Your task to perform on an android device: check google app version Image 0: 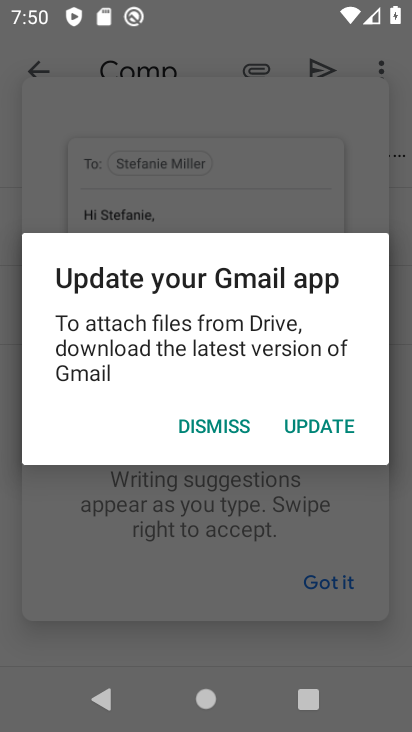
Step 0: press back button
Your task to perform on an android device: check google app version Image 1: 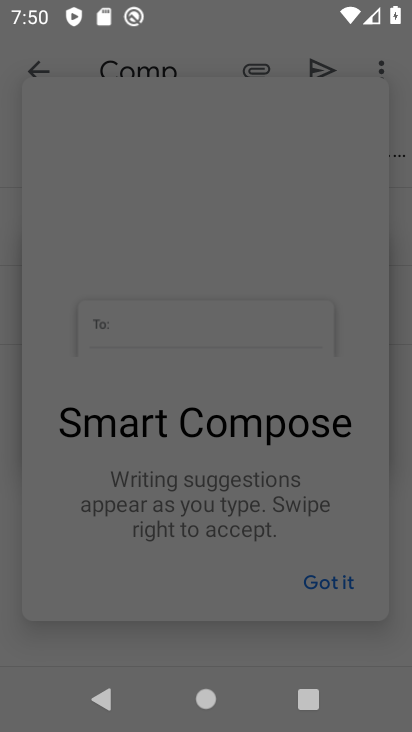
Step 1: press back button
Your task to perform on an android device: check google app version Image 2: 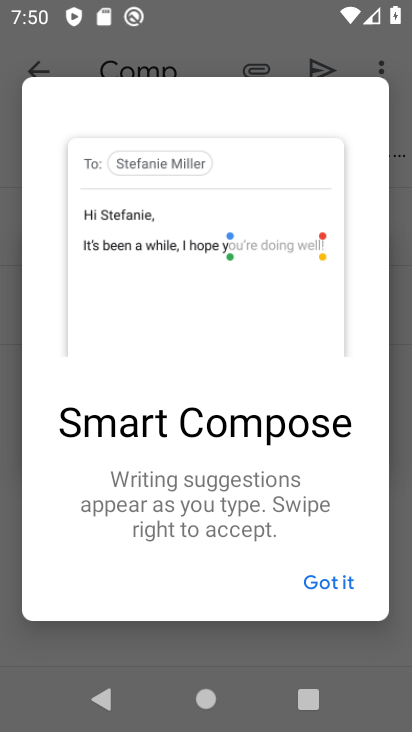
Step 2: press home button
Your task to perform on an android device: check google app version Image 3: 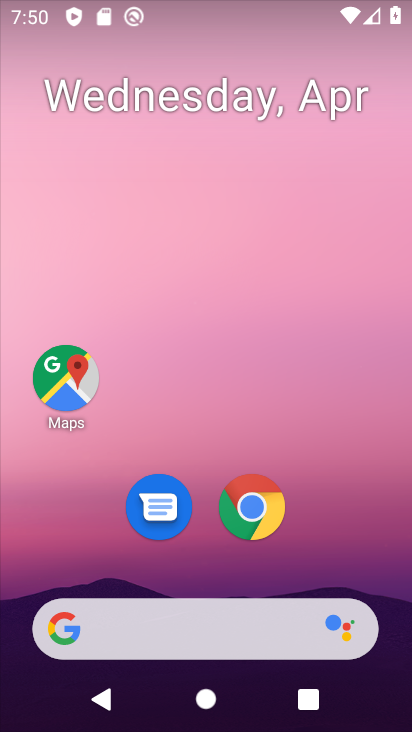
Step 3: drag from (310, 490) to (259, 122)
Your task to perform on an android device: check google app version Image 4: 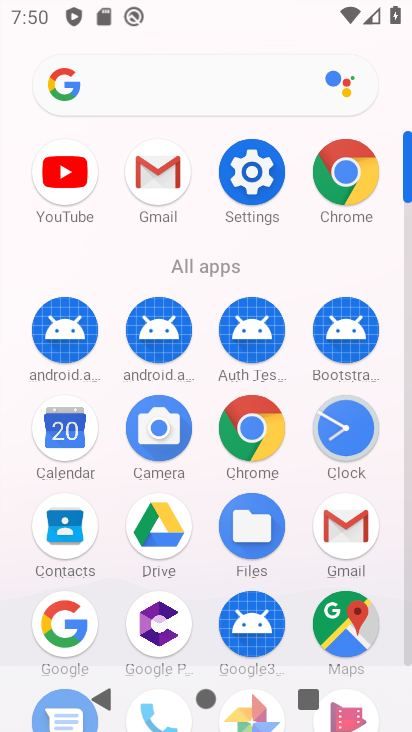
Step 4: drag from (21, 550) to (17, 374)
Your task to perform on an android device: check google app version Image 5: 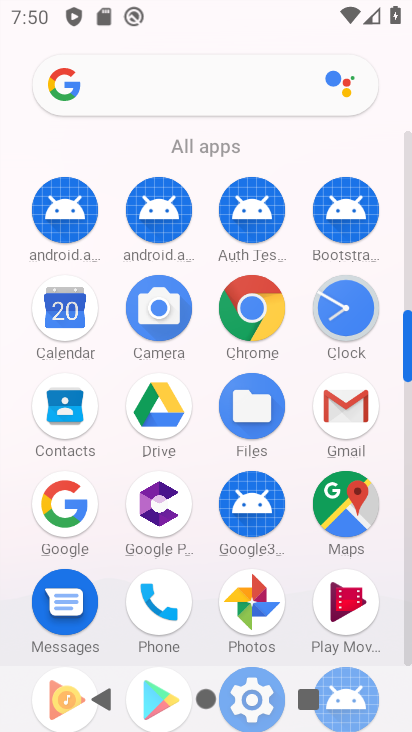
Step 5: click (64, 504)
Your task to perform on an android device: check google app version Image 6: 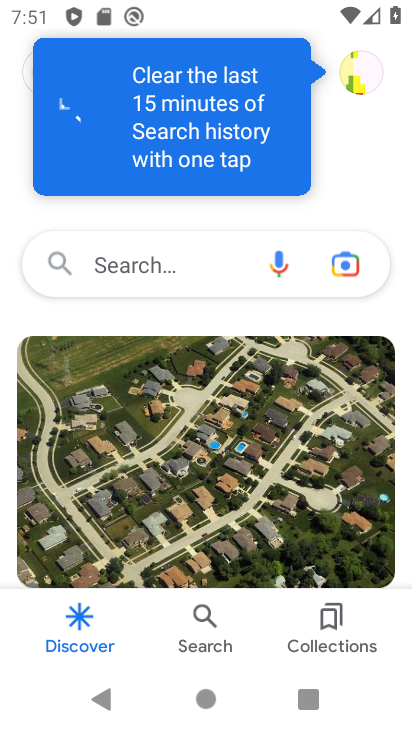
Step 6: click (362, 64)
Your task to perform on an android device: check google app version Image 7: 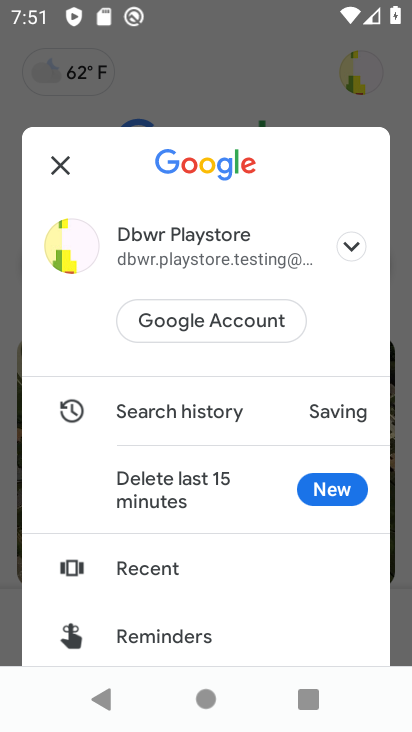
Step 7: drag from (220, 617) to (245, 180)
Your task to perform on an android device: check google app version Image 8: 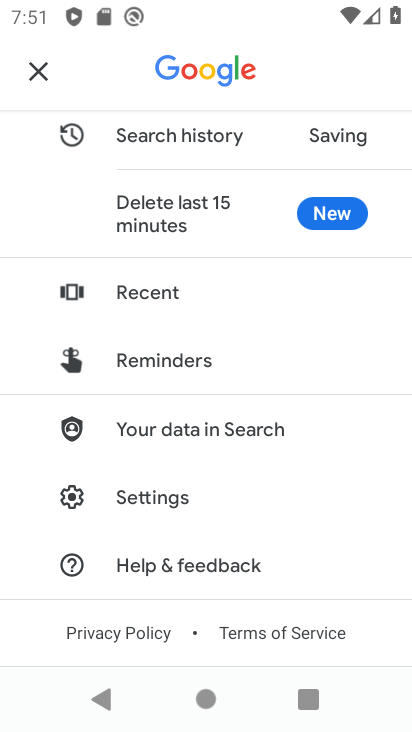
Step 8: click (174, 496)
Your task to perform on an android device: check google app version Image 9: 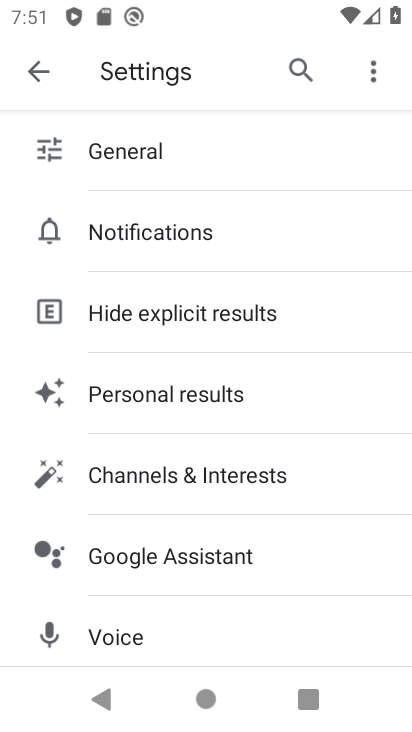
Step 9: drag from (171, 637) to (266, 231)
Your task to perform on an android device: check google app version Image 10: 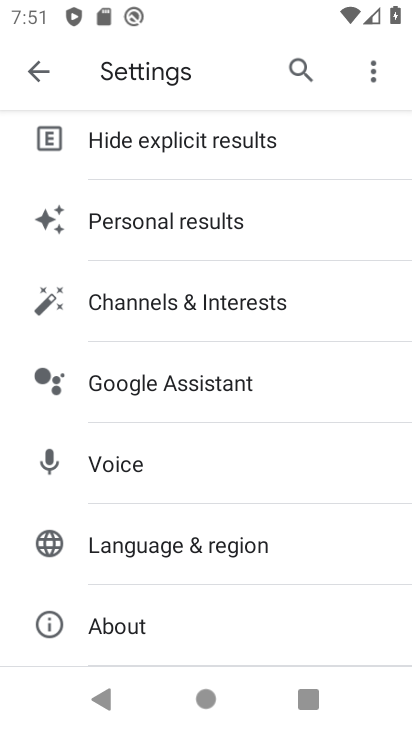
Step 10: click (141, 603)
Your task to perform on an android device: check google app version Image 11: 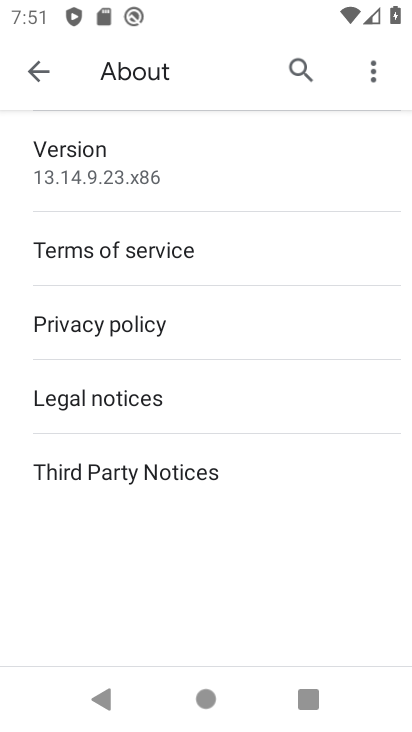
Step 11: task complete